Your task to perform on an android device: star an email in the gmail app Image 0: 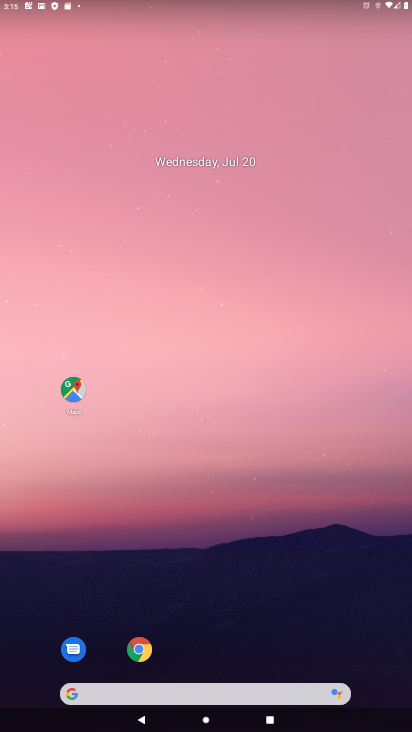
Step 0: drag from (207, 696) to (389, 16)
Your task to perform on an android device: star an email in the gmail app Image 1: 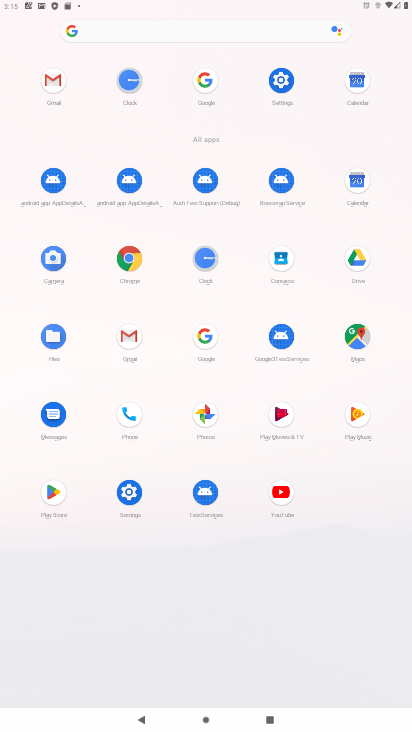
Step 1: click (127, 334)
Your task to perform on an android device: star an email in the gmail app Image 2: 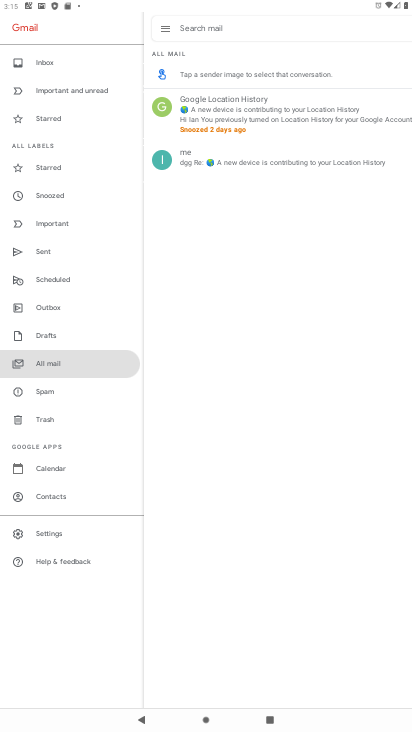
Step 2: click (242, 114)
Your task to perform on an android device: star an email in the gmail app Image 3: 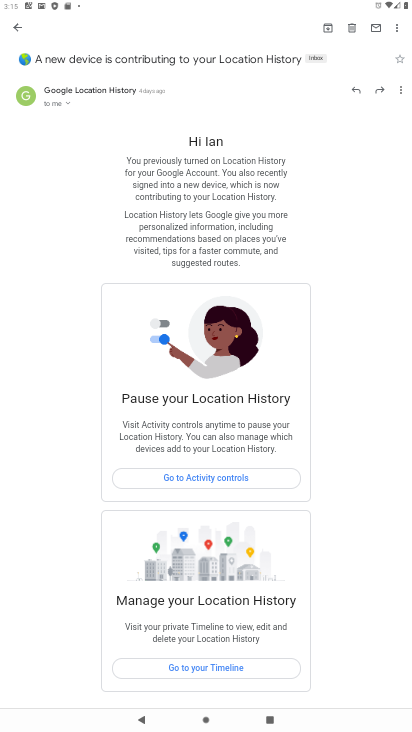
Step 3: click (399, 60)
Your task to perform on an android device: star an email in the gmail app Image 4: 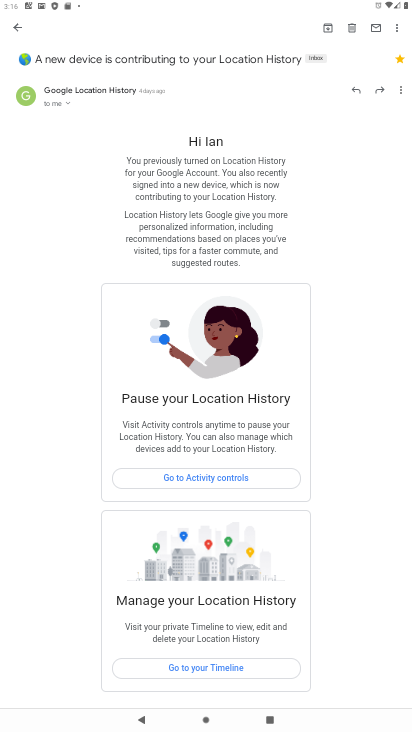
Step 4: task complete